Your task to perform on an android device: Clear the shopping cart on walmart. Search for "razer nari" on walmart, select the first entry, add it to the cart, then select checkout. Image 0: 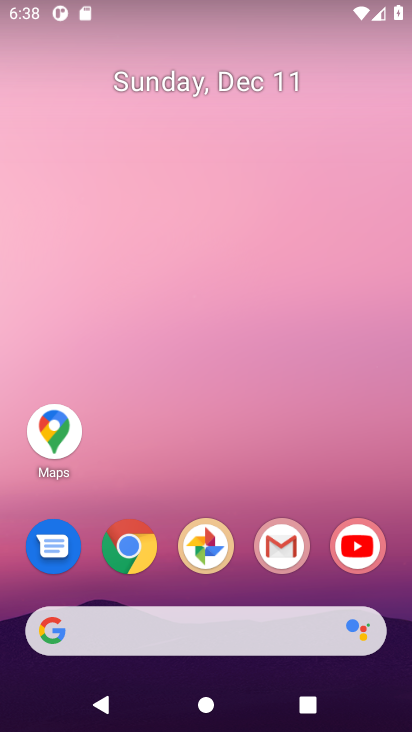
Step 0: drag from (245, 610) to (245, 55)
Your task to perform on an android device: Clear the shopping cart on walmart. Search for "razer nari" on walmart, select the first entry, add it to the cart, then select checkout. Image 1: 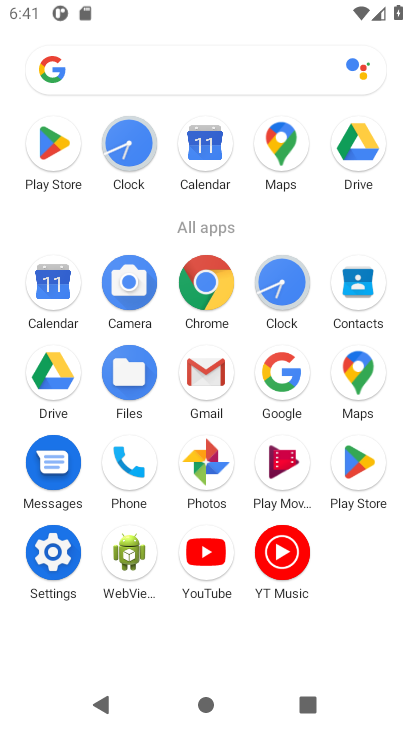
Step 1: press home button
Your task to perform on an android device: Clear the shopping cart on walmart. Search for "razer nari" on walmart, select the first entry, add it to the cart, then select checkout. Image 2: 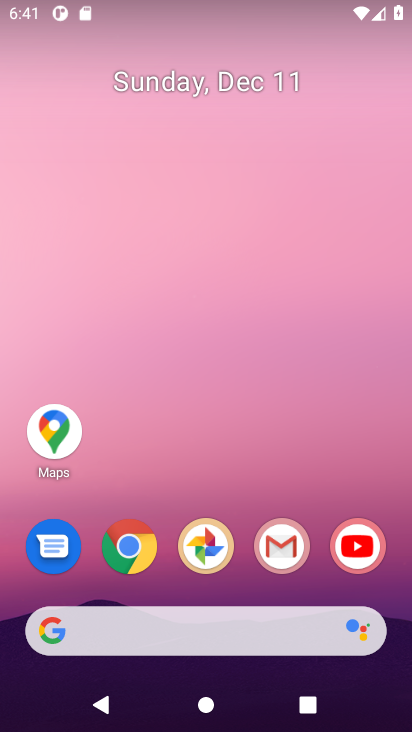
Step 2: drag from (150, 613) to (184, 0)
Your task to perform on an android device: Clear the shopping cart on walmart. Search for "razer nari" on walmart, select the first entry, add it to the cart, then select checkout. Image 3: 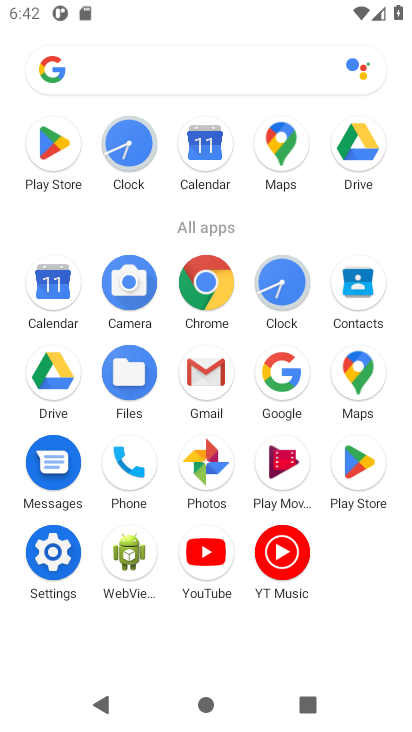
Step 3: click (277, 377)
Your task to perform on an android device: Clear the shopping cart on walmart. Search for "razer nari" on walmart, select the first entry, add it to the cart, then select checkout. Image 4: 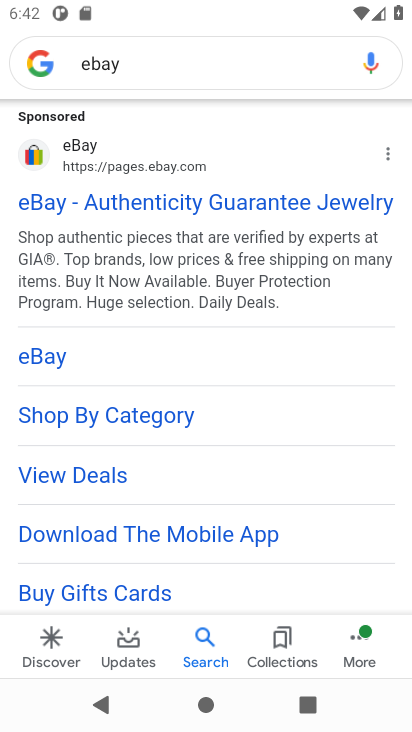
Step 4: click (113, 79)
Your task to perform on an android device: Clear the shopping cart on walmart. Search for "razer nari" on walmart, select the first entry, add it to the cart, then select checkout. Image 5: 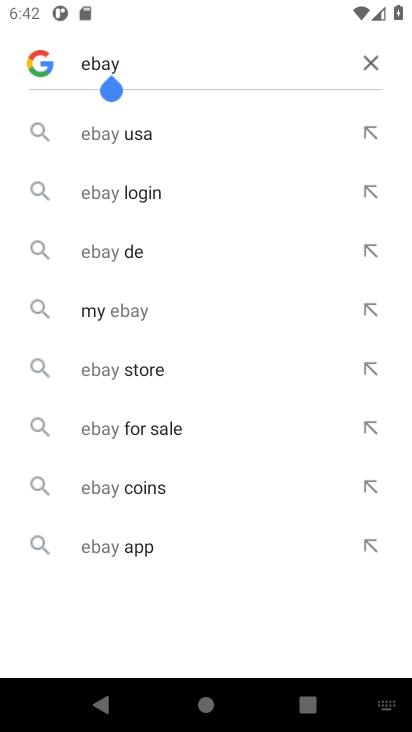
Step 5: click (375, 54)
Your task to perform on an android device: Clear the shopping cart on walmart. Search for "razer nari" on walmart, select the first entry, add it to the cart, then select checkout. Image 6: 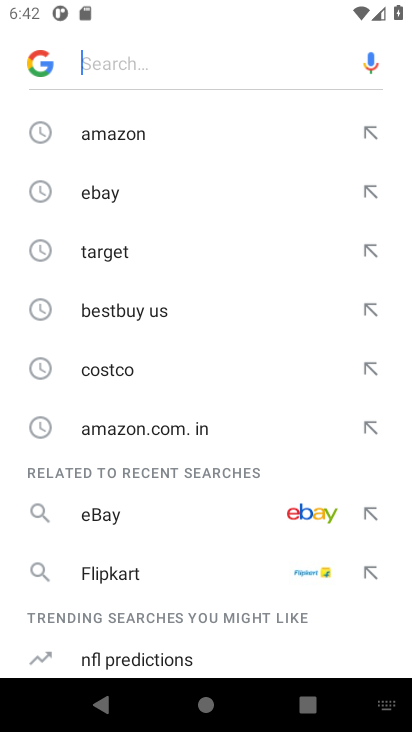
Step 6: drag from (211, 492) to (211, 85)
Your task to perform on an android device: Clear the shopping cart on walmart. Search for "razer nari" on walmart, select the first entry, add it to the cart, then select checkout. Image 7: 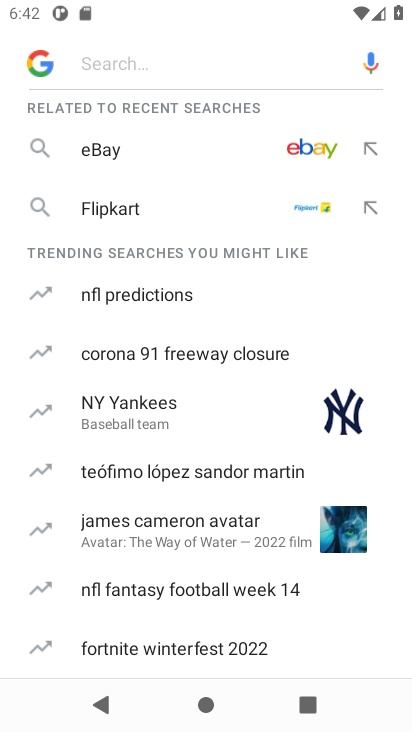
Step 7: drag from (175, 506) to (124, 122)
Your task to perform on an android device: Clear the shopping cart on walmart. Search for "razer nari" on walmart, select the first entry, add it to the cart, then select checkout. Image 8: 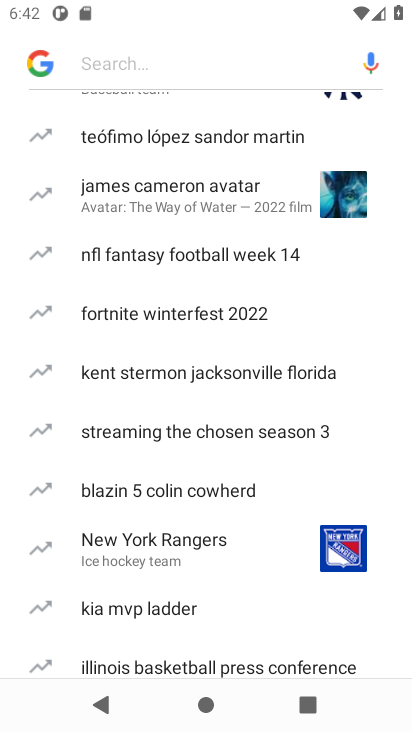
Step 8: type "walmart"
Your task to perform on an android device: Clear the shopping cart on walmart. Search for "razer nari" on walmart, select the first entry, add it to the cart, then select checkout. Image 9: 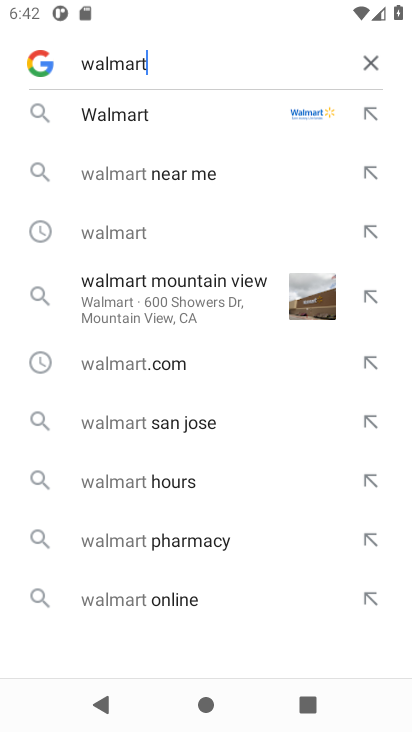
Step 9: click (77, 108)
Your task to perform on an android device: Clear the shopping cart on walmart. Search for "razer nari" on walmart, select the first entry, add it to the cart, then select checkout. Image 10: 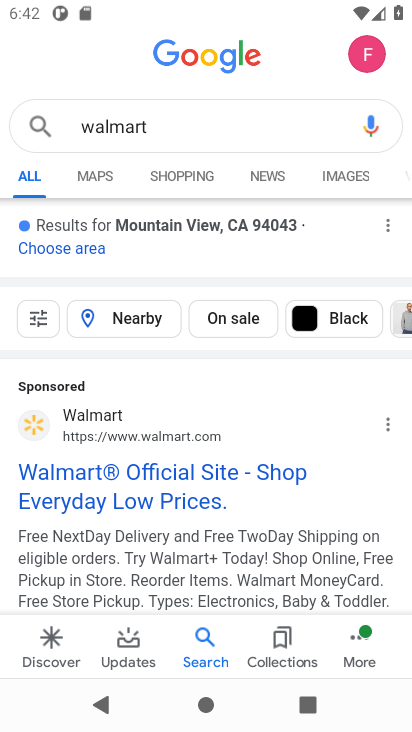
Step 10: click (157, 492)
Your task to perform on an android device: Clear the shopping cart on walmart. Search for "razer nari" on walmart, select the first entry, add it to the cart, then select checkout. Image 11: 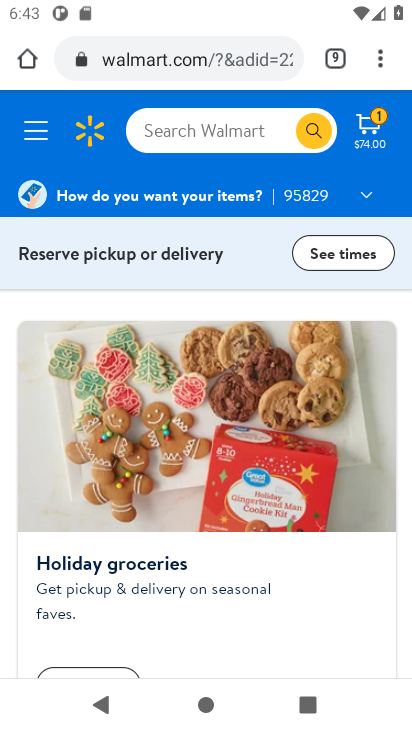
Step 11: click (153, 123)
Your task to perform on an android device: Clear the shopping cart on walmart. Search for "razer nari" on walmart, select the first entry, add it to the cart, then select checkout. Image 12: 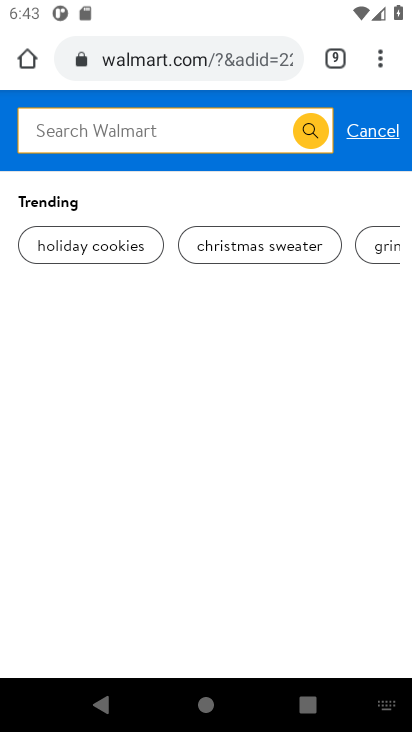
Step 12: type "razer nari"
Your task to perform on an android device: Clear the shopping cart on walmart. Search for "razer nari" on walmart, select the first entry, add it to the cart, then select checkout. Image 13: 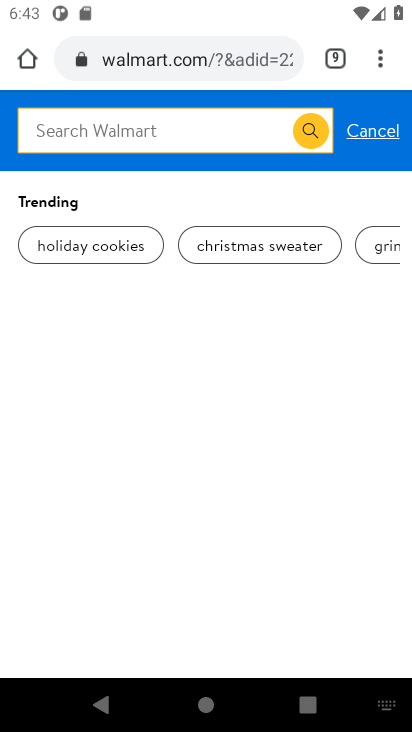
Step 13: click (311, 134)
Your task to perform on an android device: Clear the shopping cart on walmart. Search for "razer nari" on walmart, select the first entry, add it to the cart, then select checkout. Image 14: 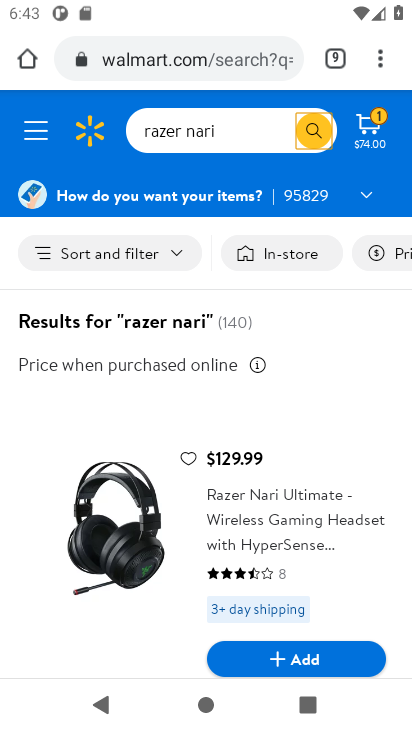
Step 14: click (322, 659)
Your task to perform on an android device: Clear the shopping cart on walmart. Search for "razer nari" on walmart, select the first entry, add it to the cart, then select checkout. Image 15: 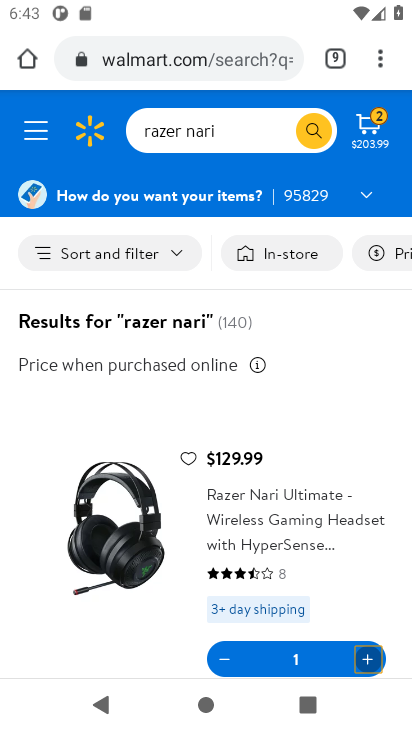
Step 15: click (384, 124)
Your task to perform on an android device: Clear the shopping cart on walmart. Search for "razer nari" on walmart, select the first entry, add it to the cart, then select checkout. Image 16: 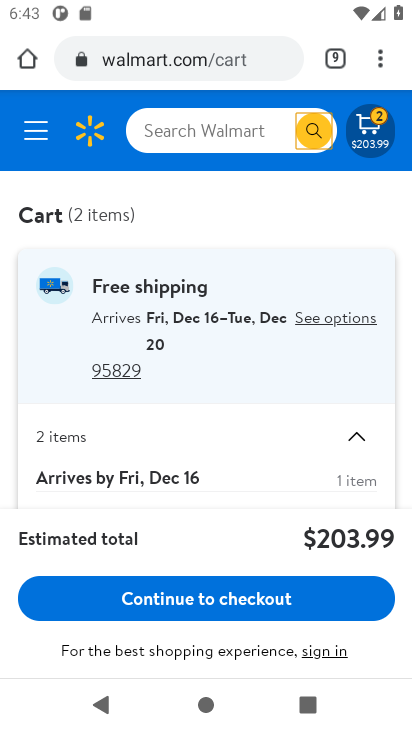
Step 16: click (190, 594)
Your task to perform on an android device: Clear the shopping cart on walmart. Search for "razer nari" on walmart, select the first entry, add it to the cart, then select checkout. Image 17: 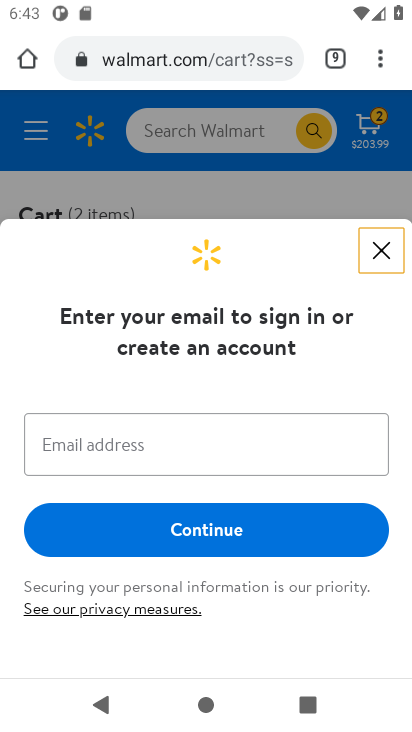
Step 17: task complete